Your task to perform on an android device: What's on my calendar today? Image 0: 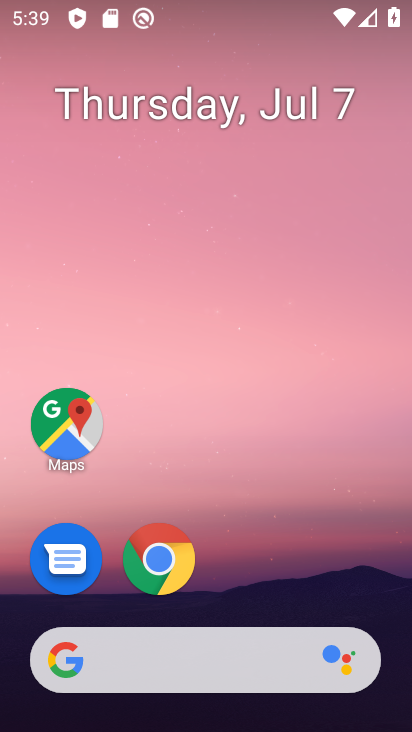
Step 0: drag from (236, 565) to (250, 150)
Your task to perform on an android device: What's on my calendar today? Image 1: 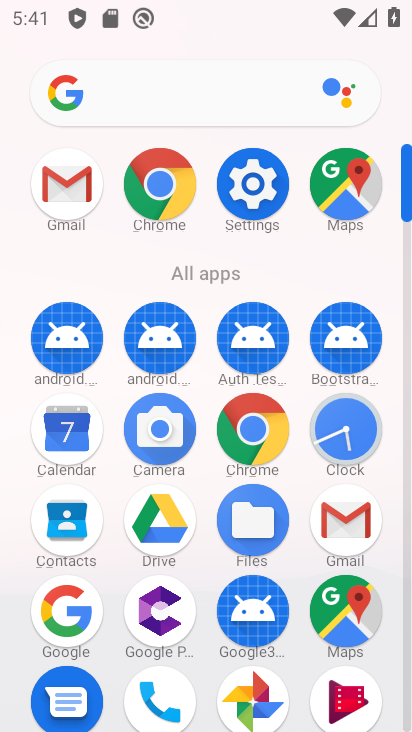
Step 1: click (74, 446)
Your task to perform on an android device: What's on my calendar today? Image 2: 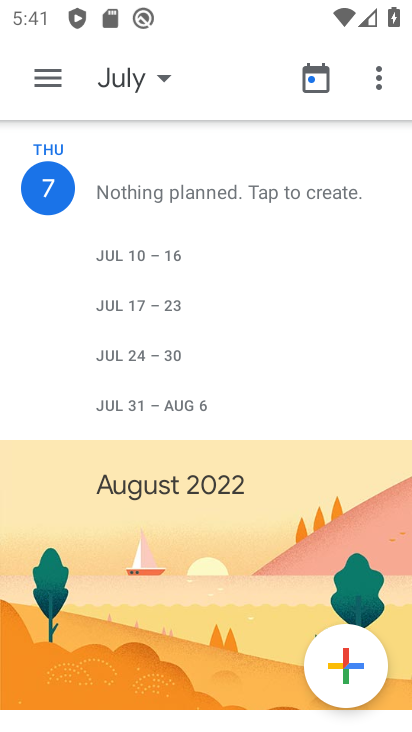
Step 2: task complete